Your task to perform on an android device: Go to Reddit.com Image 0: 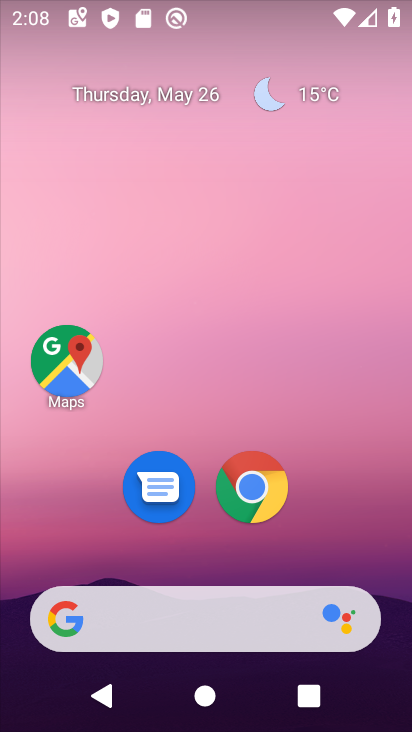
Step 0: click (269, 479)
Your task to perform on an android device: Go to Reddit.com Image 1: 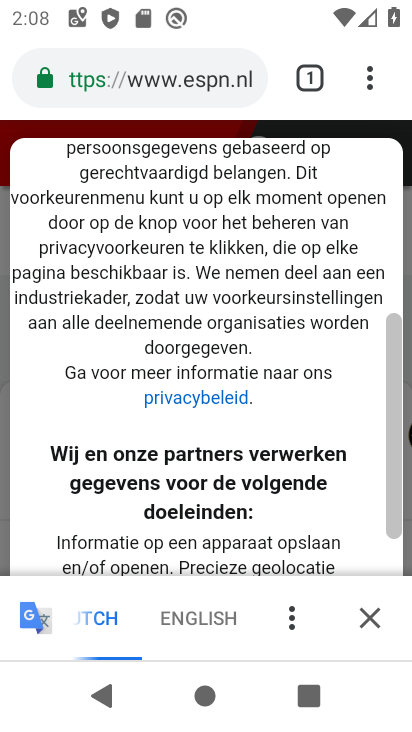
Step 1: click (305, 72)
Your task to perform on an android device: Go to Reddit.com Image 2: 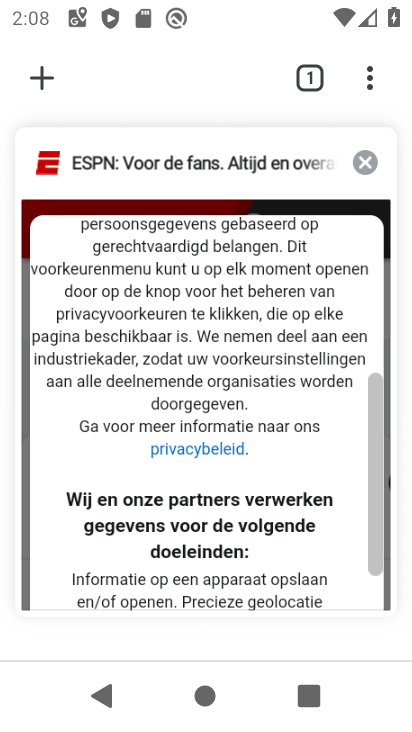
Step 2: click (50, 74)
Your task to perform on an android device: Go to Reddit.com Image 3: 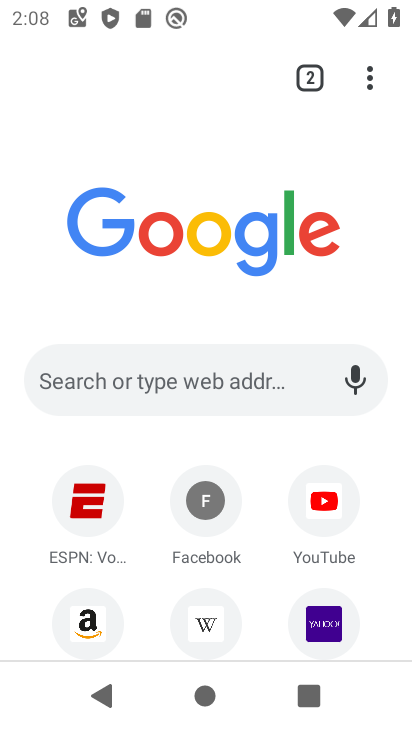
Step 3: click (206, 366)
Your task to perform on an android device: Go to Reddit.com Image 4: 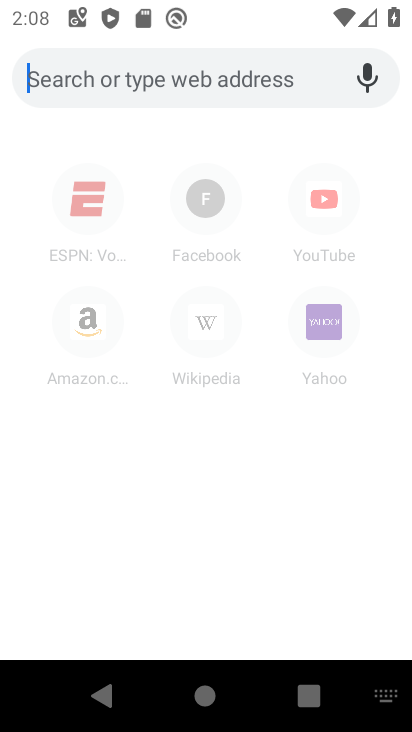
Step 4: type "Reddit.com"
Your task to perform on an android device: Go to Reddit.com Image 5: 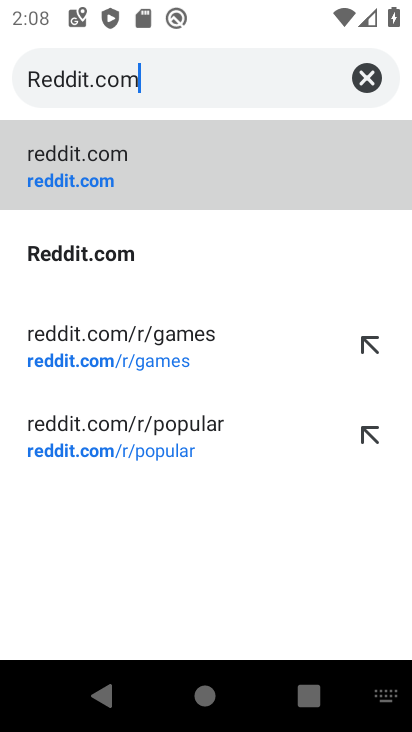
Step 5: click (257, 169)
Your task to perform on an android device: Go to Reddit.com Image 6: 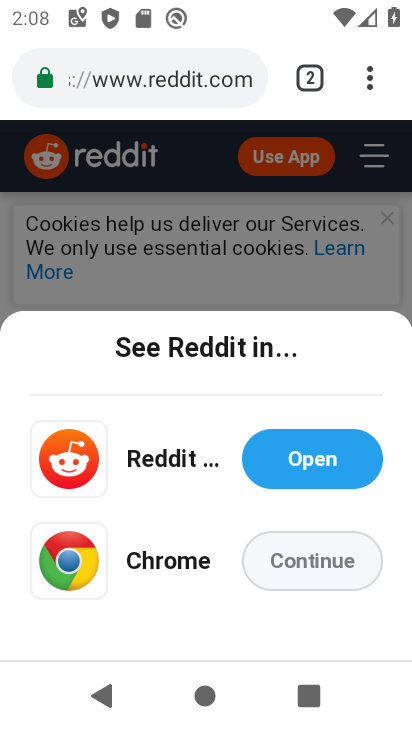
Step 6: click (343, 554)
Your task to perform on an android device: Go to Reddit.com Image 7: 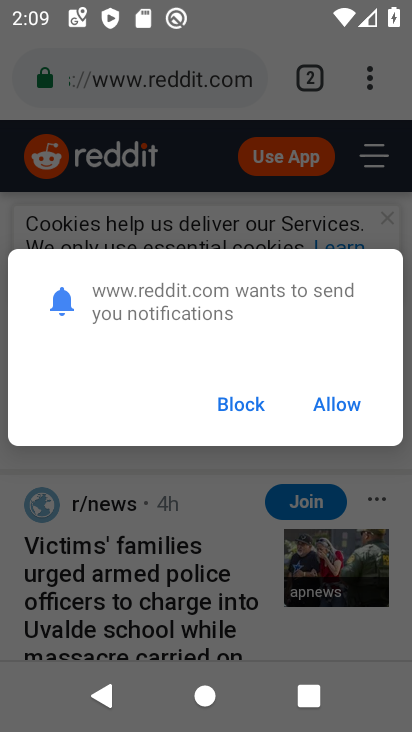
Step 7: task complete